Your task to perform on an android device: Open network settings Image 0: 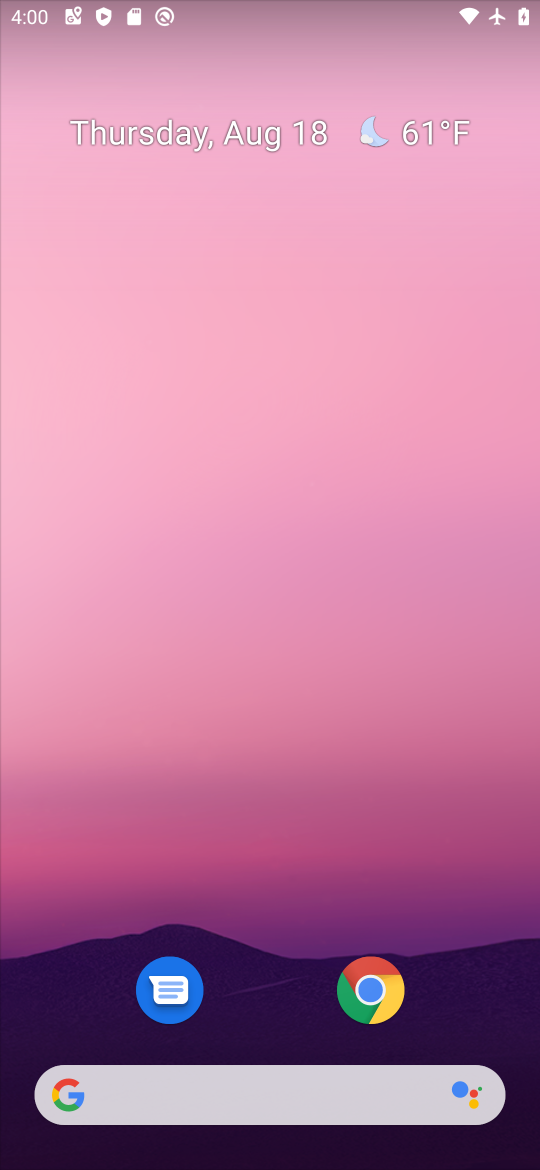
Step 0: drag from (239, 955) to (321, 0)
Your task to perform on an android device: Open network settings Image 1: 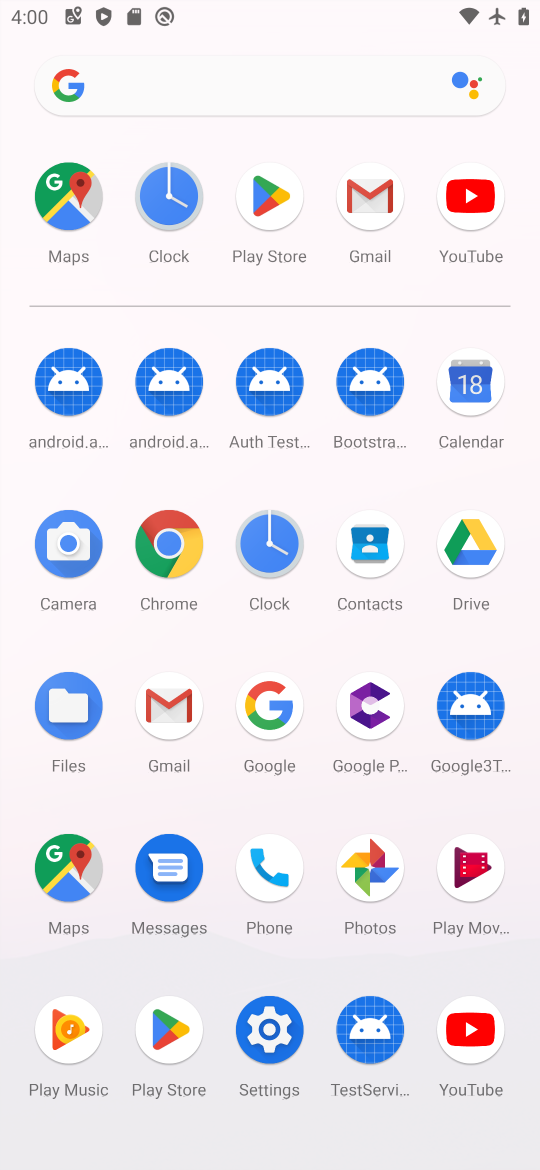
Step 1: click (271, 1087)
Your task to perform on an android device: Open network settings Image 2: 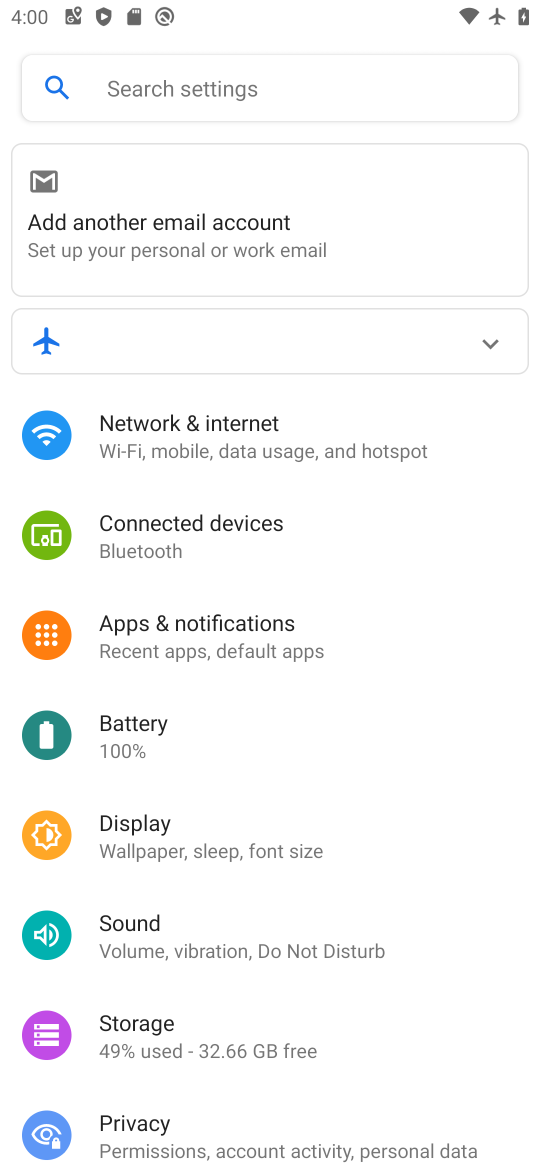
Step 2: click (168, 427)
Your task to perform on an android device: Open network settings Image 3: 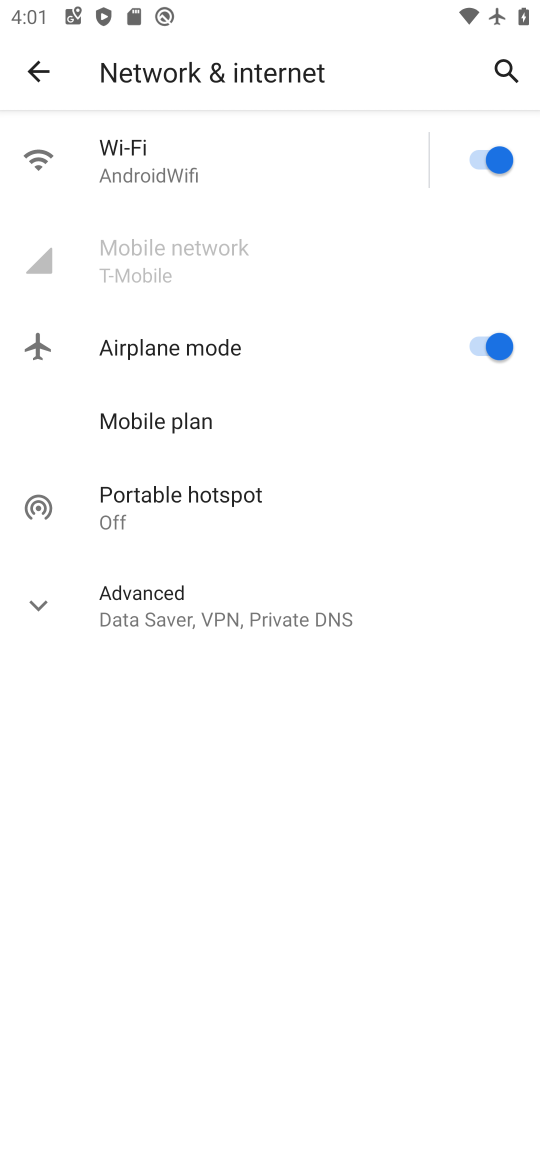
Step 3: task complete